Your task to perform on an android device: toggle translation in the chrome app Image 0: 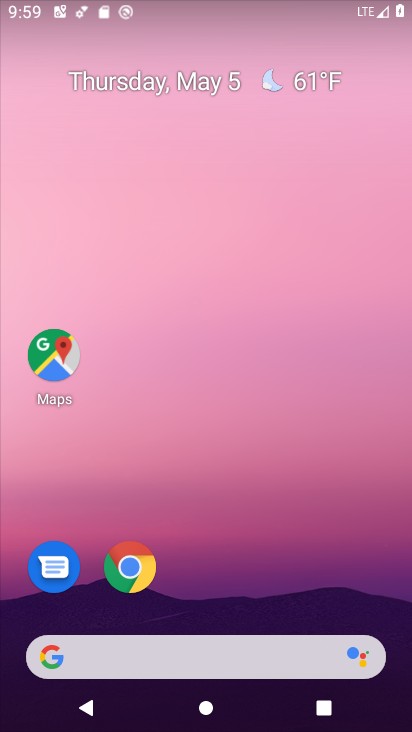
Step 0: click (139, 569)
Your task to perform on an android device: toggle translation in the chrome app Image 1: 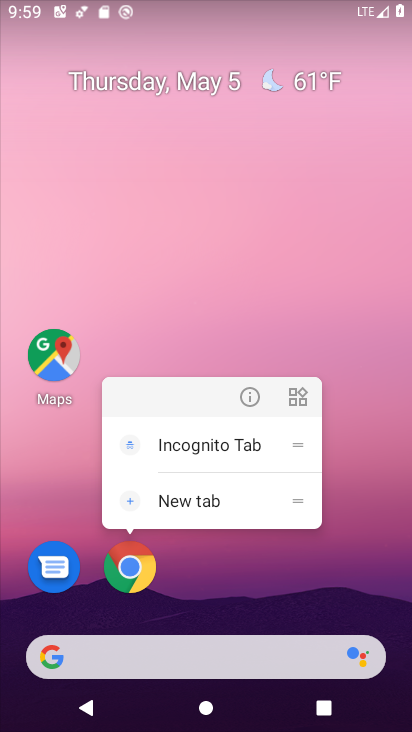
Step 1: click (127, 562)
Your task to perform on an android device: toggle translation in the chrome app Image 2: 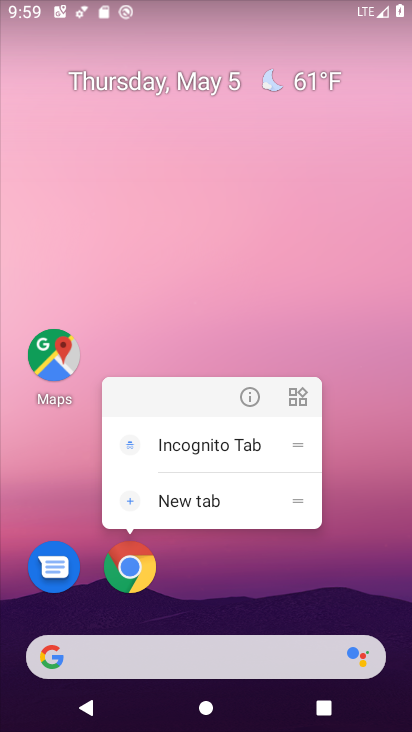
Step 2: click (127, 562)
Your task to perform on an android device: toggle translation in the chrome app Image 3: 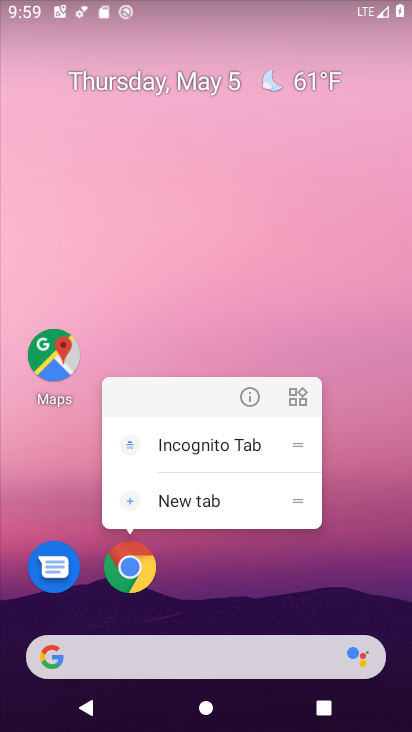
Step 3: click (131, 570)
Your task to perform on an android device: toggle translation in the chrome app Image 4: 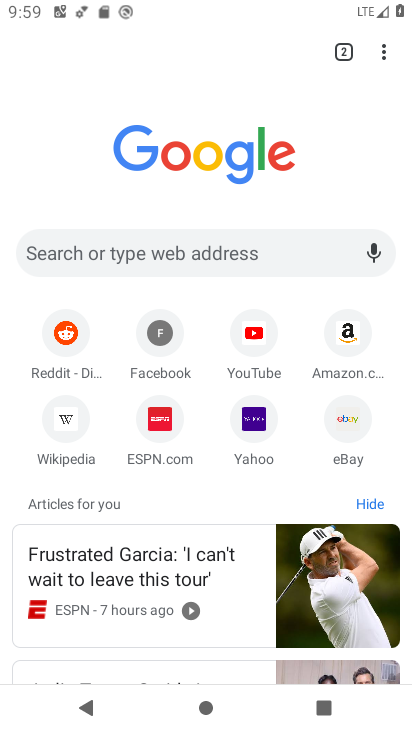
Step 4: click (395, 51)
Your task to perform on an android device: toggle translation in the chrome app Image 5: 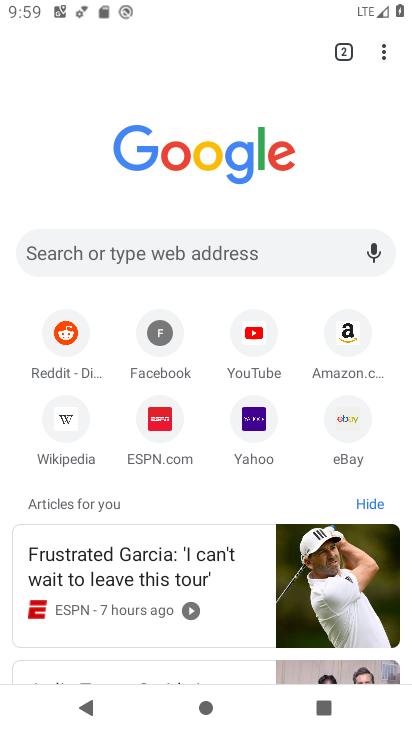
Step 5: click (393, 51)
Your task to perform on an android device: toggle translation in the chrome app Image 6: 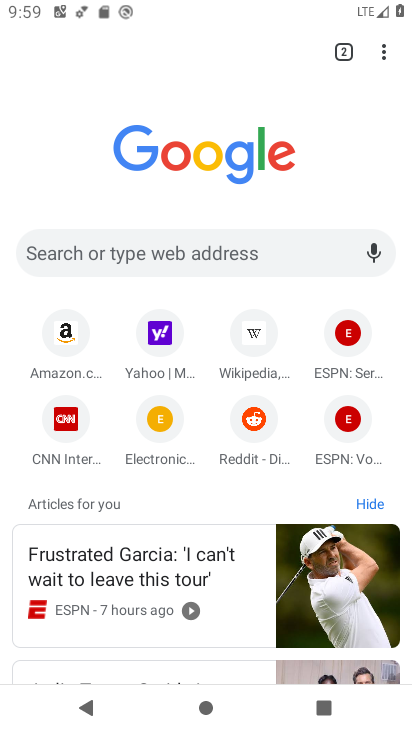
Step 6: click (393, 51)
Your task to perform on an android device: toggle translation in the chrome app Image 7: 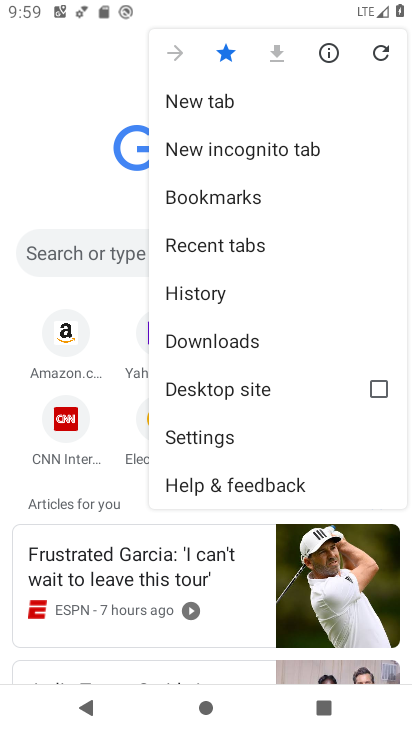
Step 7: click (210, 432)
Your task to perform on an android device: toggle translation in the chrome app Image 8: 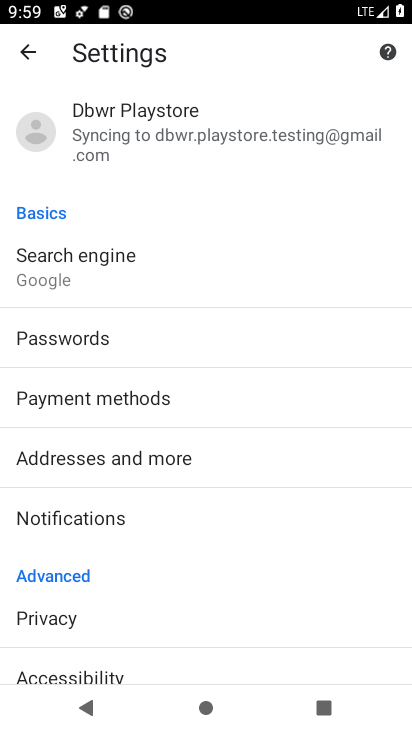
Step 8: drag from (130, 632) to (160, 305)
Your task to perform on an android device: toggle translation in the chrome app Image 9: 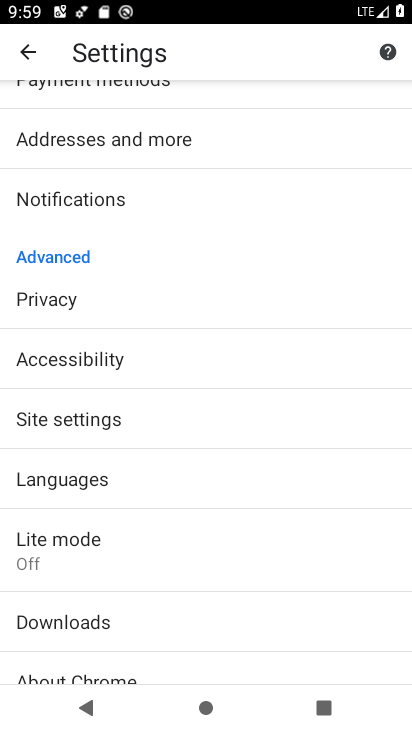
Step 9: click (127, 481)
Your task to perform on an android device: toggle translation in the chrome app Image 10: 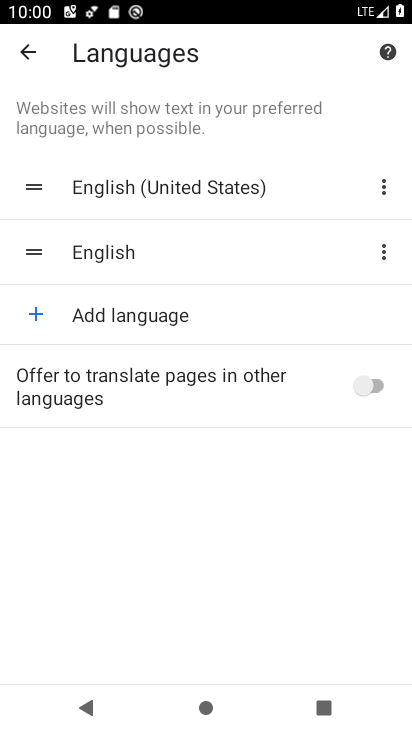
Step 10: click (380, 387)
Your task to perform on an android device: toggle translation in the chrome app Image 11: 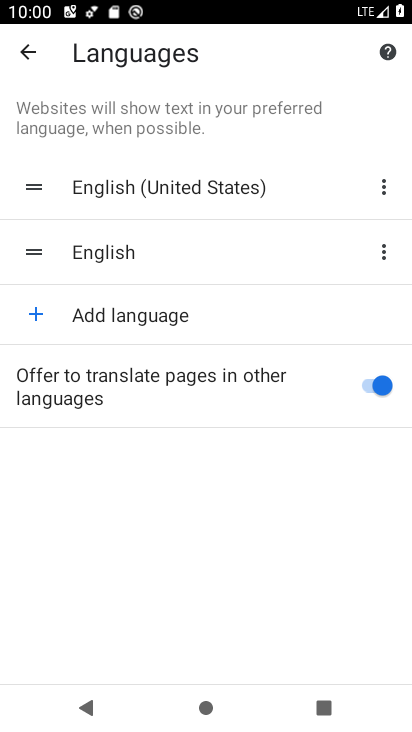
Step 11: task complete